Your task to perform on an android device: Search for flights from Barcelona to Boston Image 0: 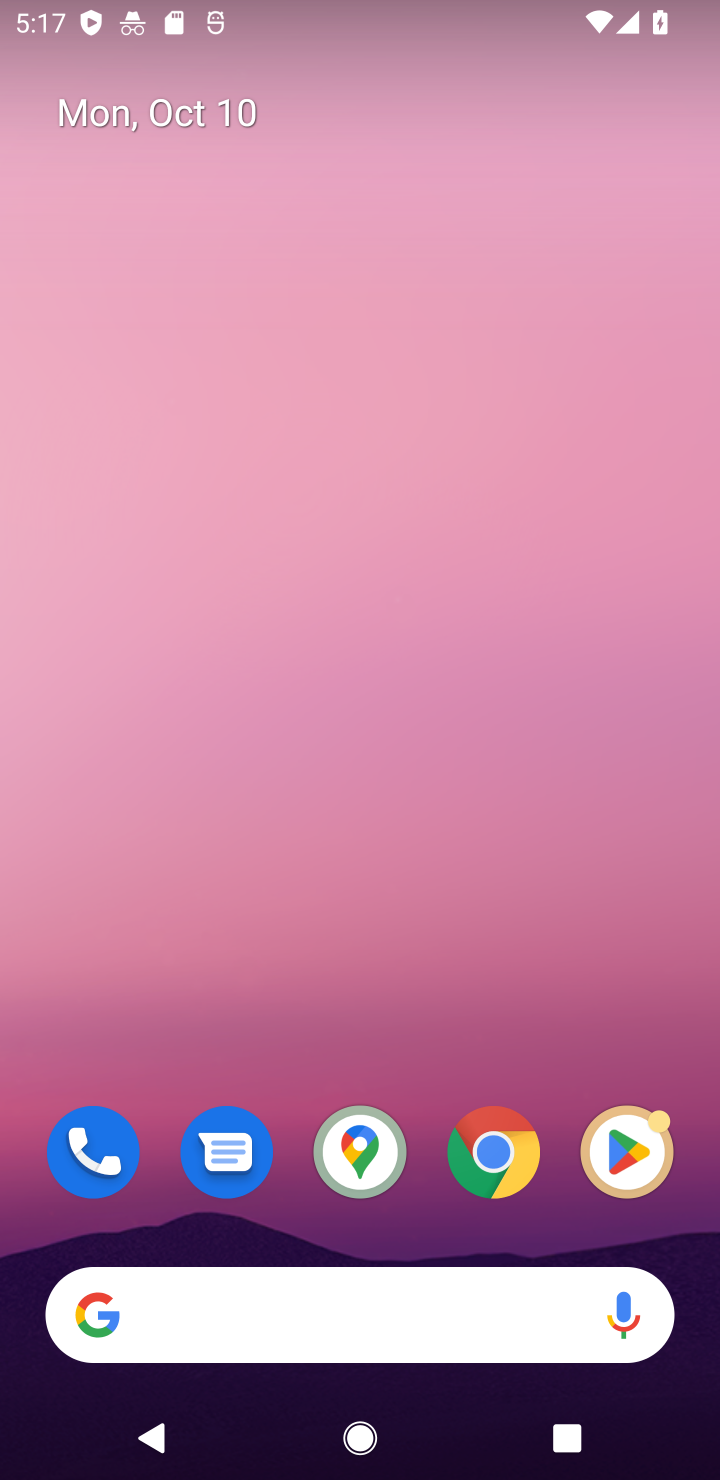
Step 0: click (494, 1152)
Your task to perform on an android device: Search for flights from Barcelona to Boston Image 1: 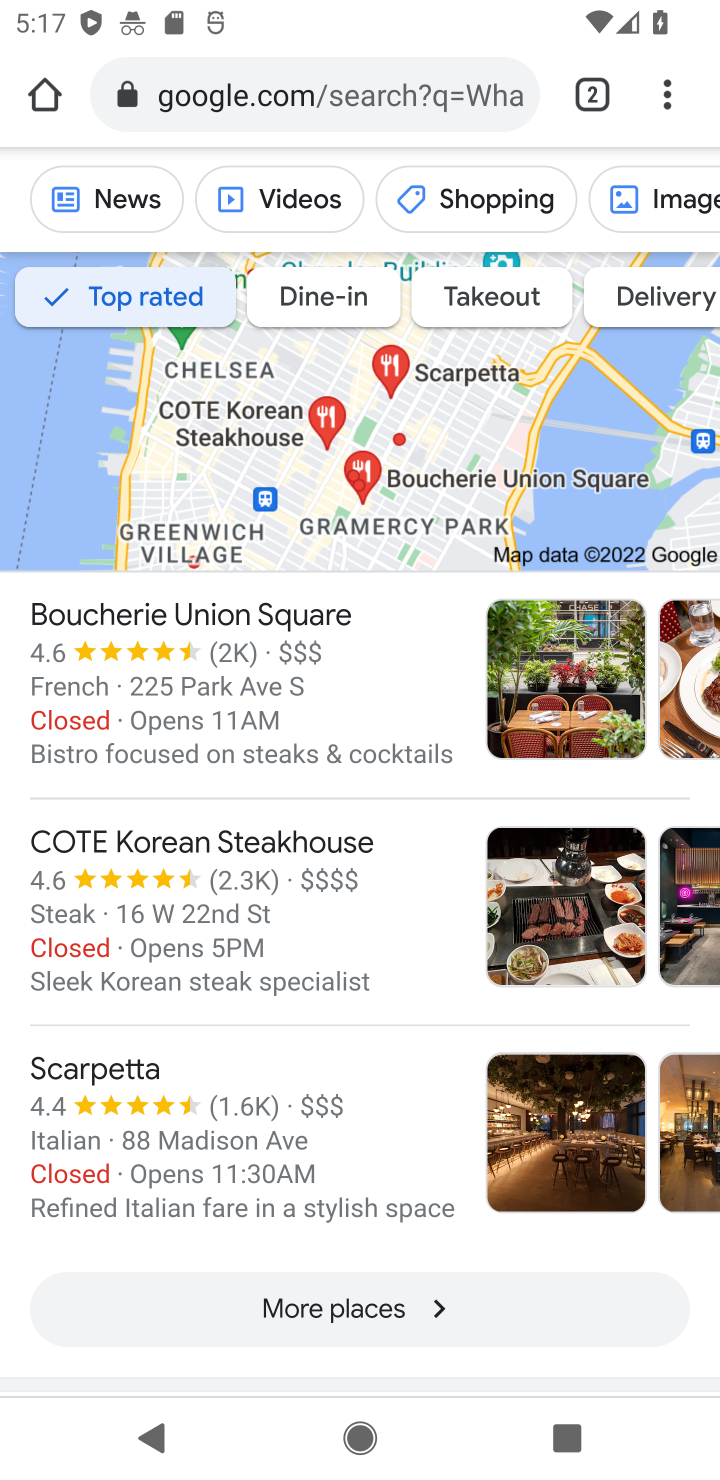
Step 1: click (429, 96)
Your task to perform on an android device: Search for flights from Barcelona to Boston Image 2: 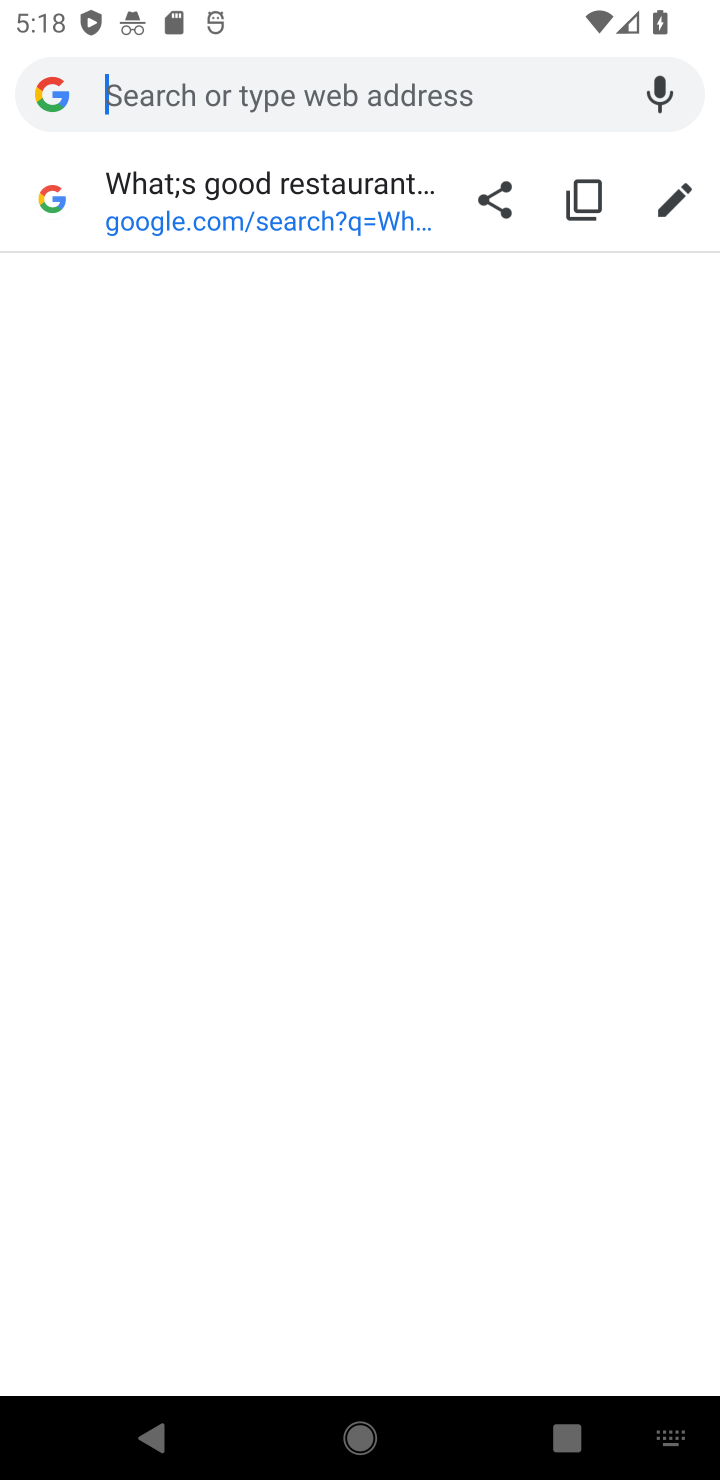
Step 2: type "flights from Barcelona to Boston"
Your task to perform on an android device: Search for flights from Barcelona to Boston Image 3: 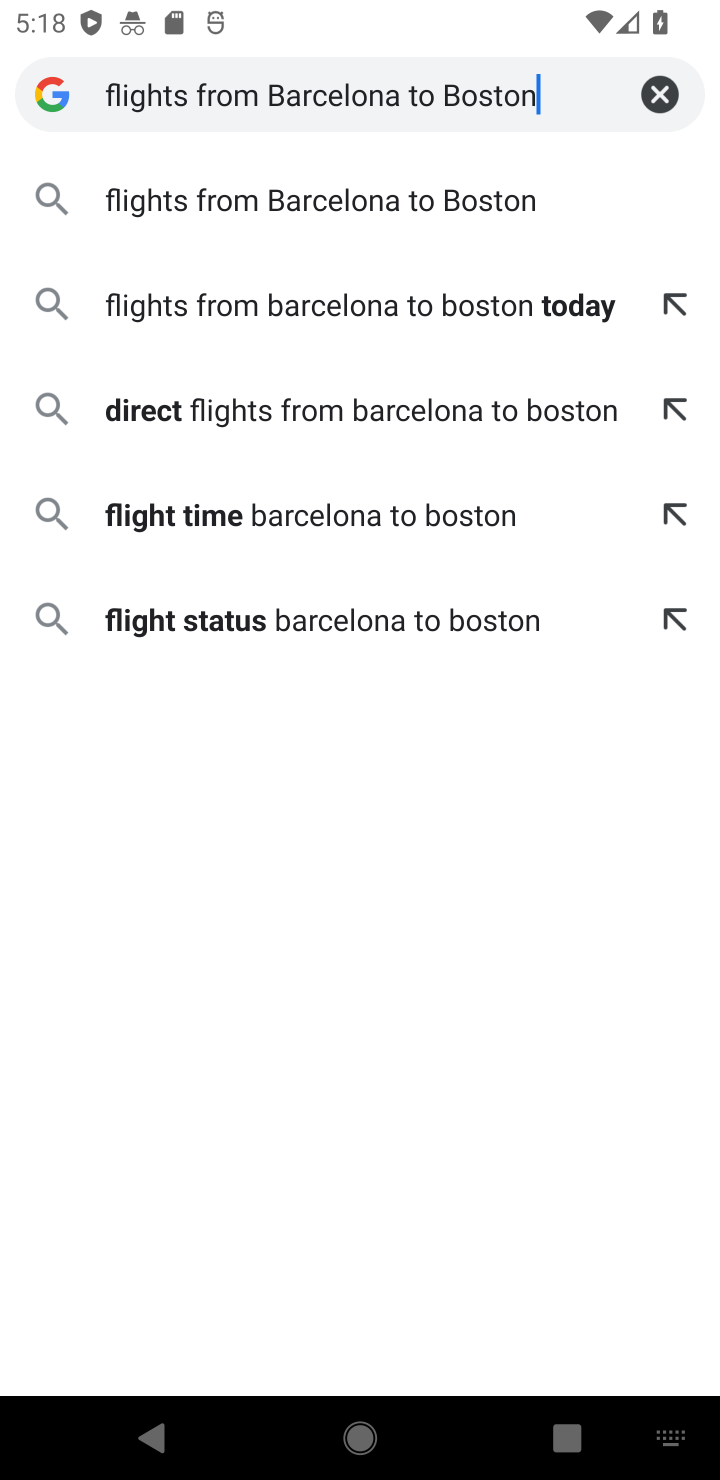
Step 3: click (402, 189)
Your task to perform on an android device: Search for flights from Barcelona to Boston Image 4: 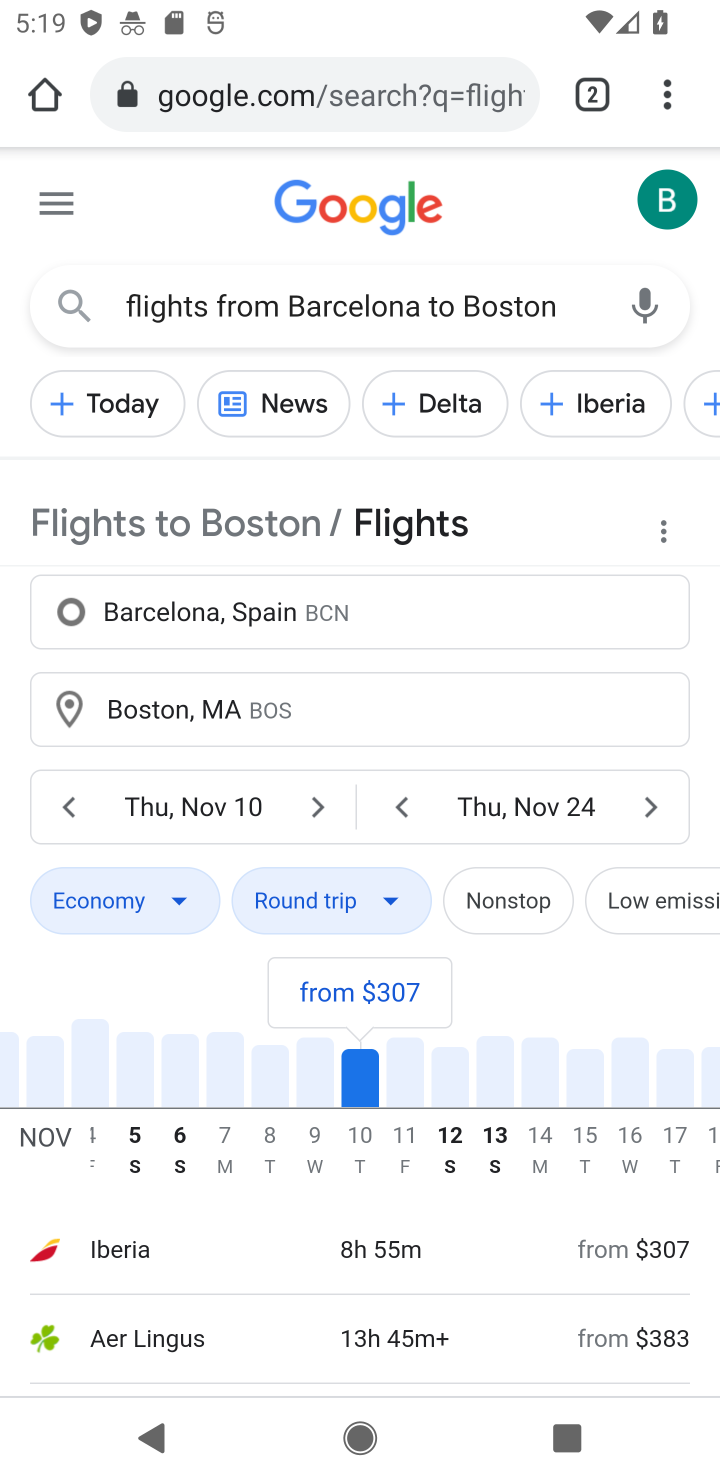
Step 4: task complete